Your task to perform on an android device: install app "Adobe Express: Graphic Design" Image 0: 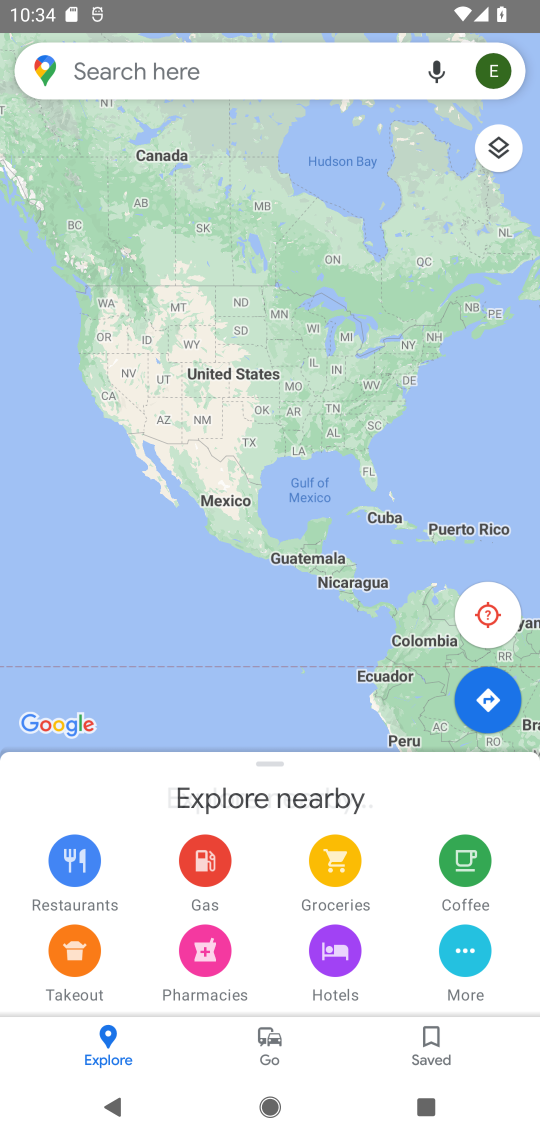
Step 0: drag from (297, 874) to (258, 110)
Your task to perform on an android device: install app "Adobe Express: Graphic Design" Image 1: 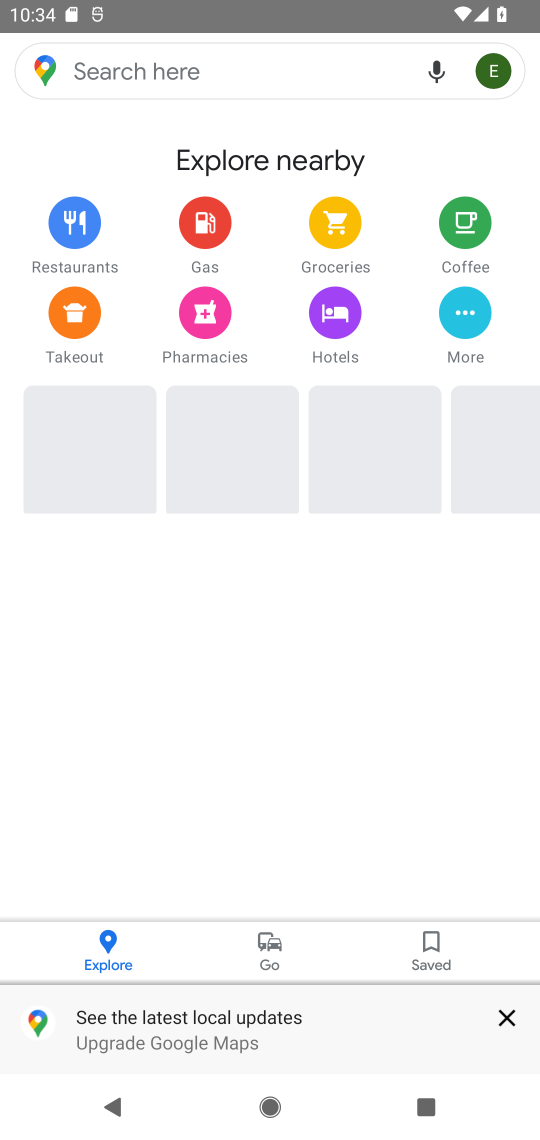
Step 1: press home button
Your task to perform on an android device: install app "Adobe Express: Graphic Design" Image 2: 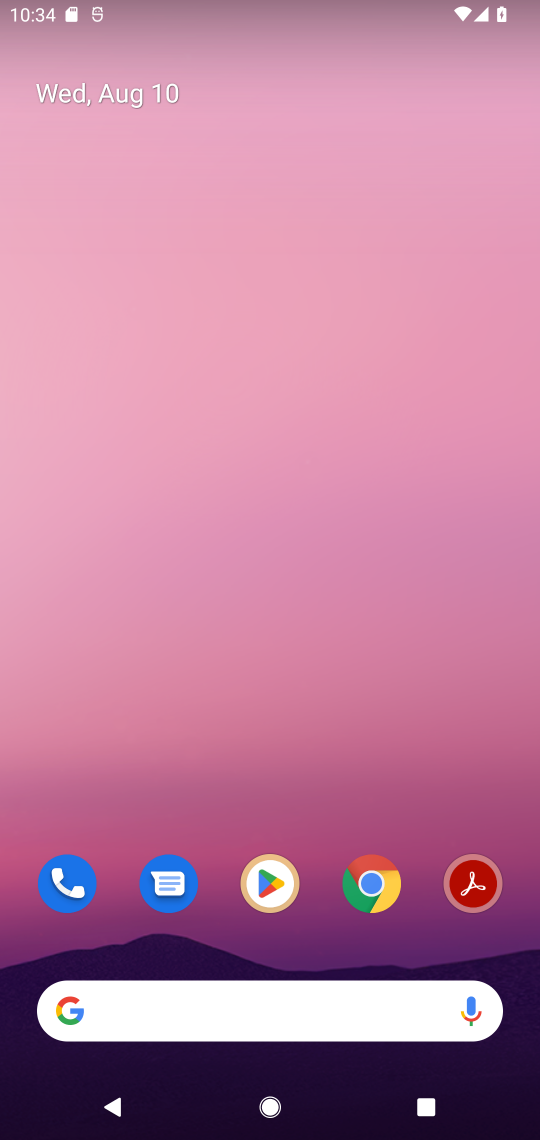
Step 2: drag from (335, 944) to (320, 174)
Your task to perform on an android device: install app "Adobe Express: Graphic Design" Image 3: 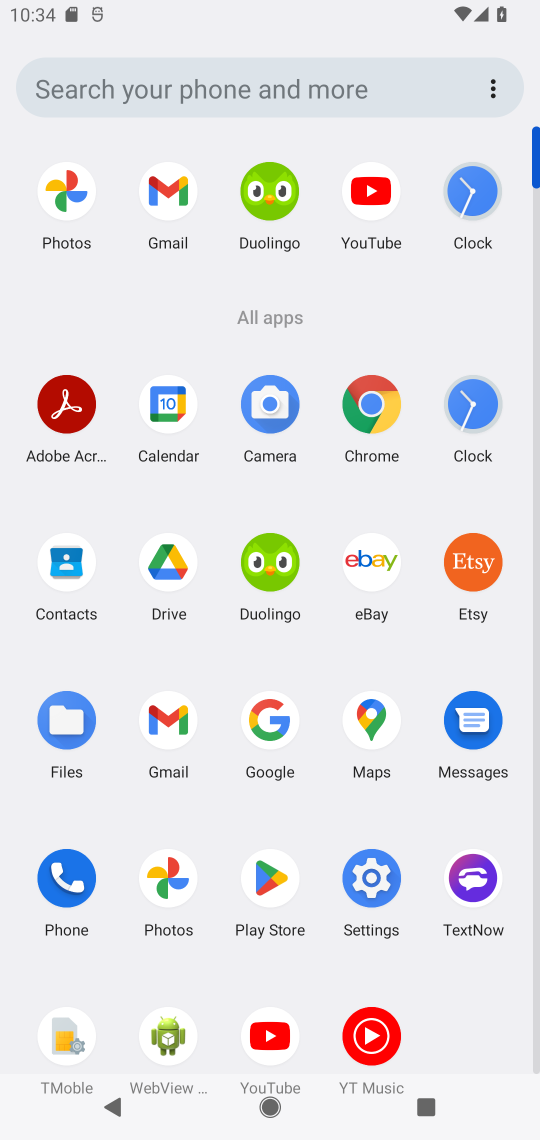
Step 3: click (273, 882)
Your task to perform on an android device: install app "Adobe Express: Graphic Design" Image 4: 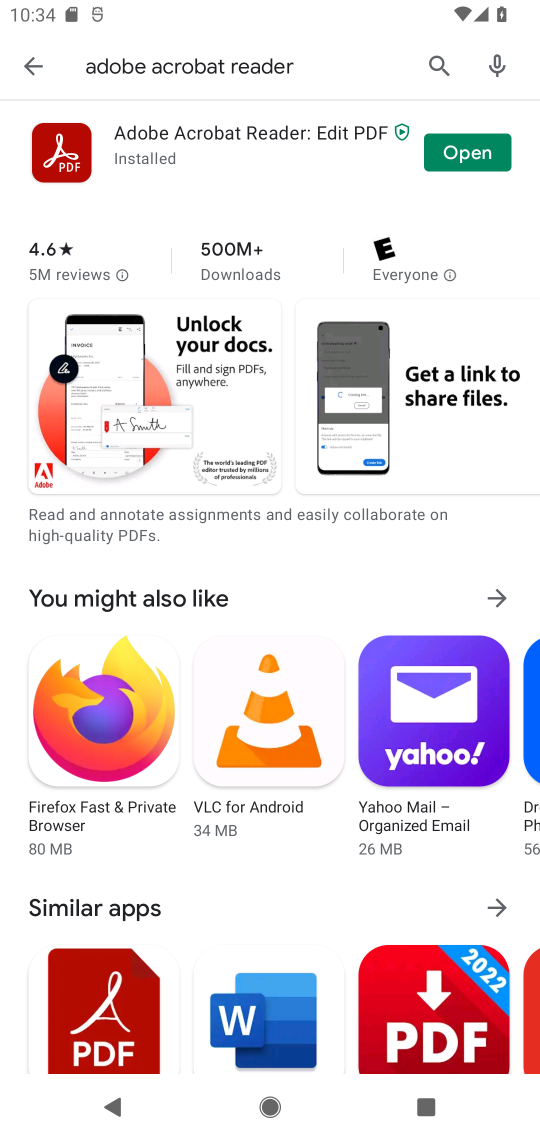
Step 4: click (436, 63)
Your task to perform on an android device: install app "Adobe Express: Graphic Design" Image 5: 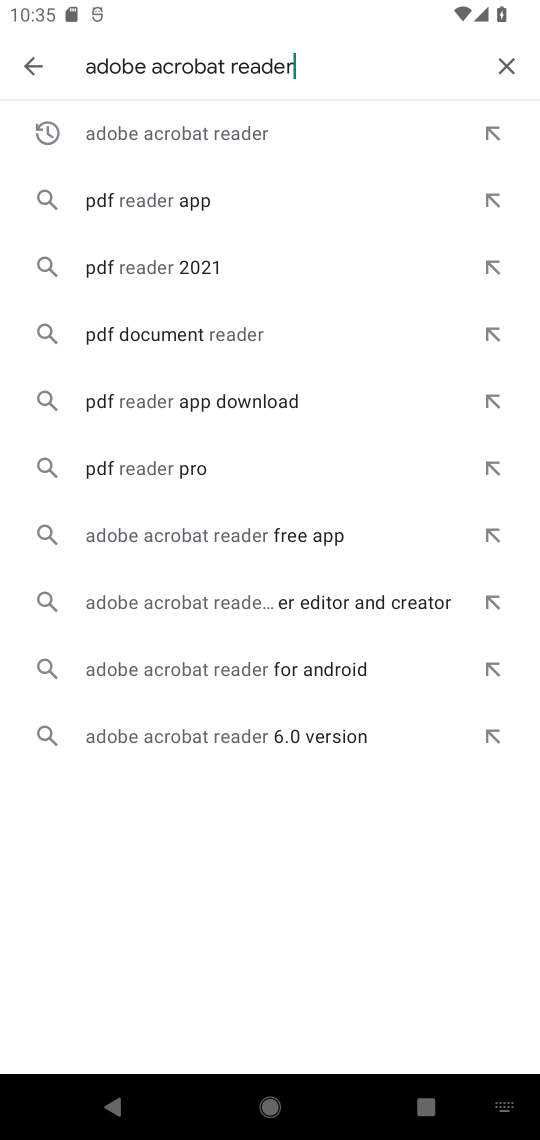
Step 5: click (503, 59)
Your task to perform on an android device: install app "Adobe Express: Graphic Design" Image 6: 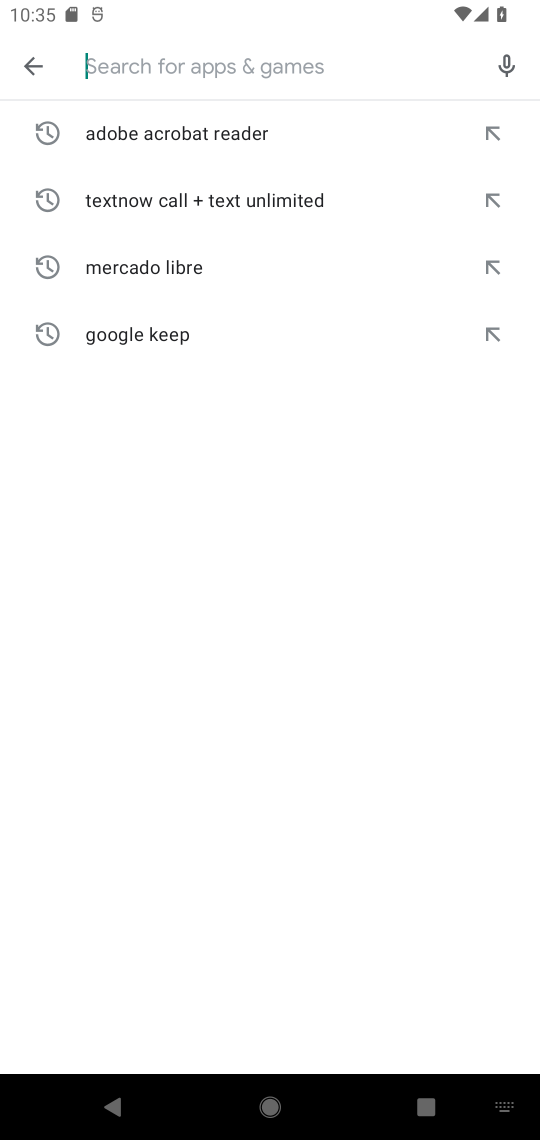
Step 6: type "Adobe Express: Graphic Design"
Your task to perform on an android device: install app "Adobe Express: Graphic Design" Image 7: 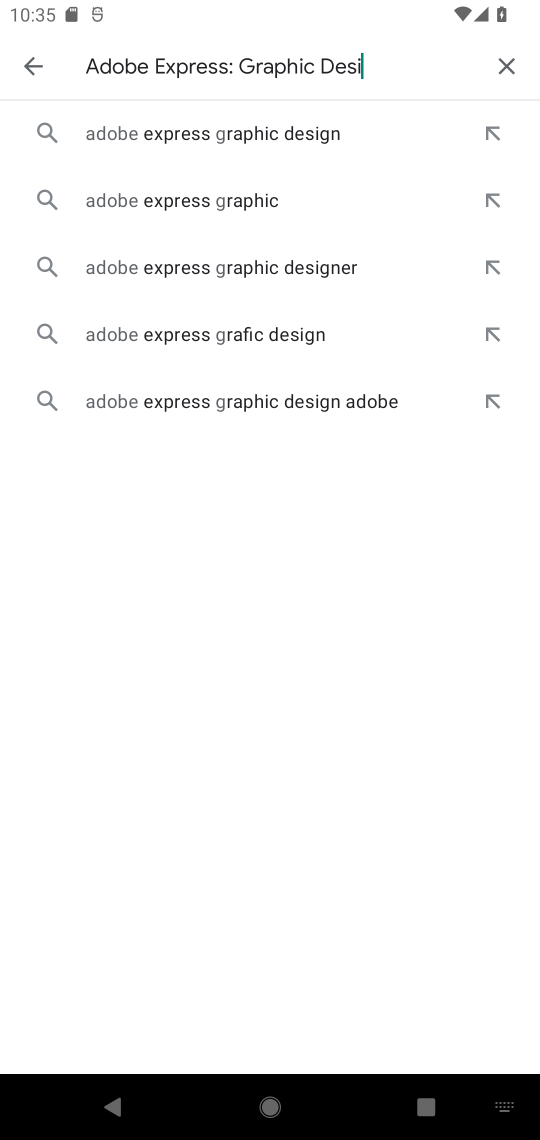
Step 7: type ""
Your task to perform on an android device: install app "Adobe Express: Graphic Design" Image 8: 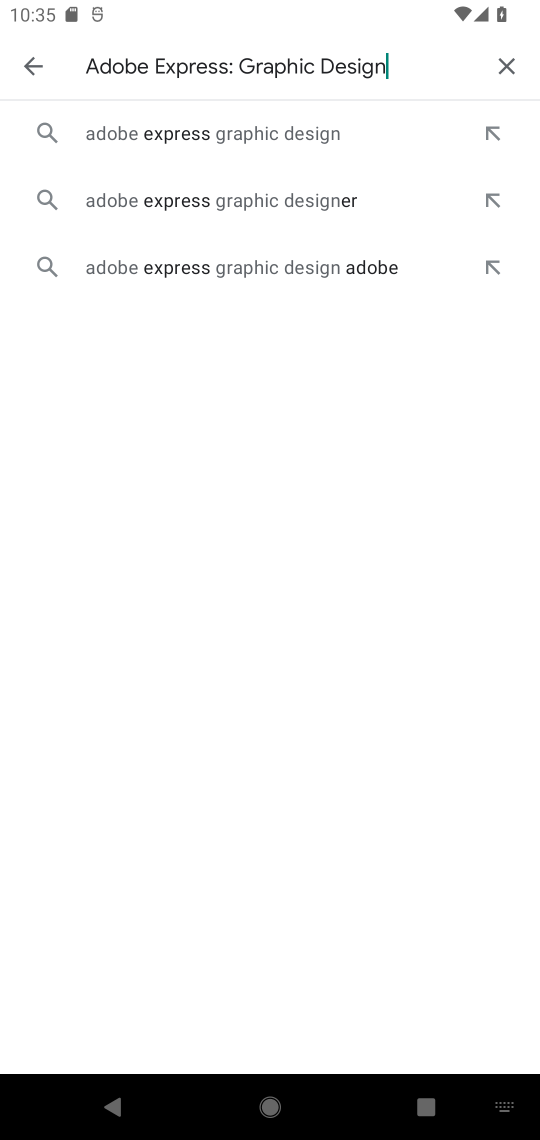
Step 8: click (195, 138)
Your task to perform on an android device: install app "Adobe Express: Graphic Design" Image 9: 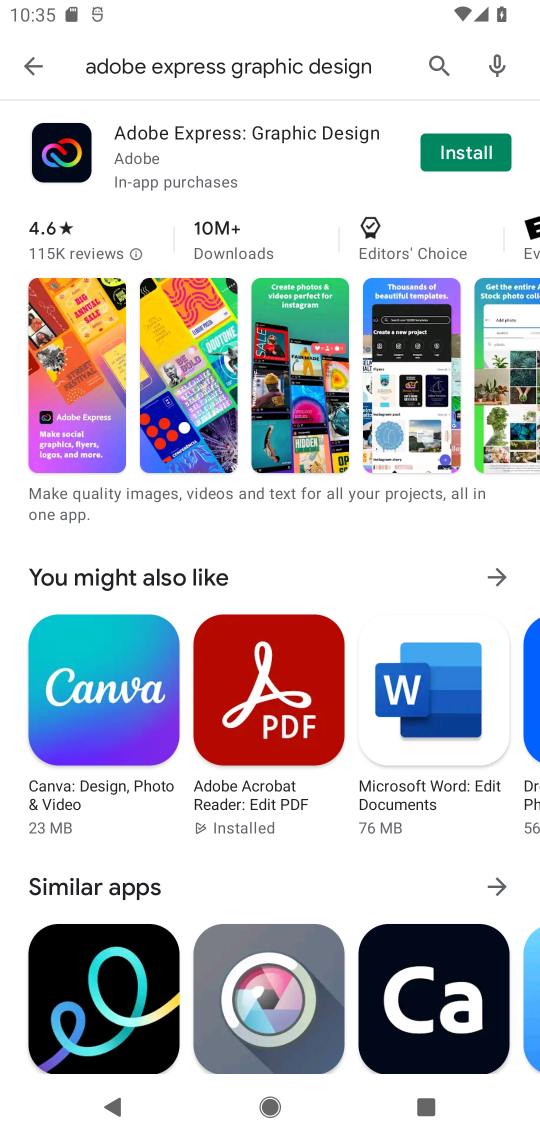
Step 9: click (459, 135)
Your task to perform on an android device: install app "Adobe Express: Graphic Design" Image 10: 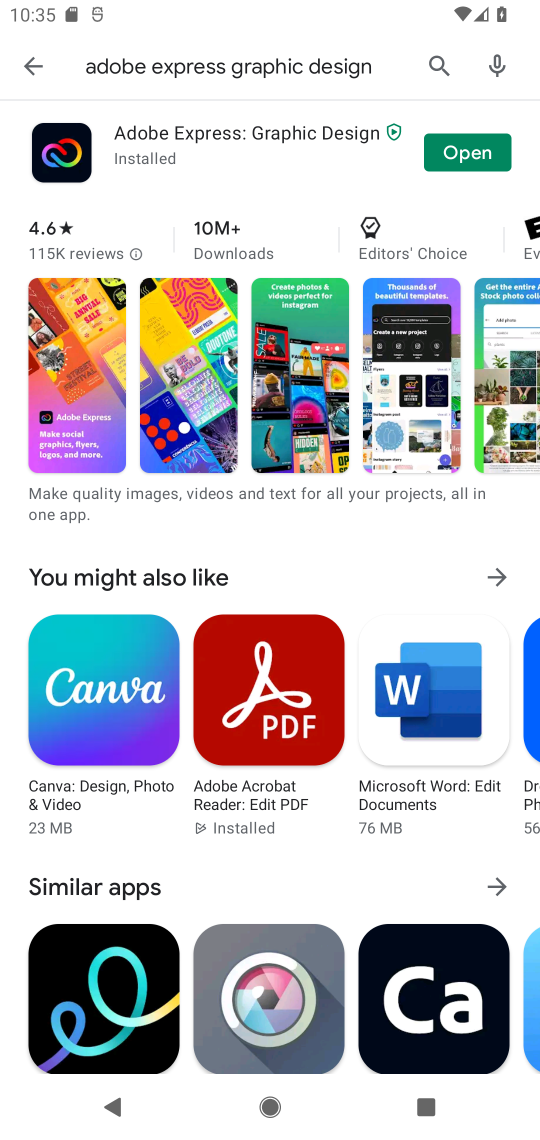
Step 10: click (339, 147)
Your task to perform on an android device: install app "Adobe Express: Graphic Design" Image 11: 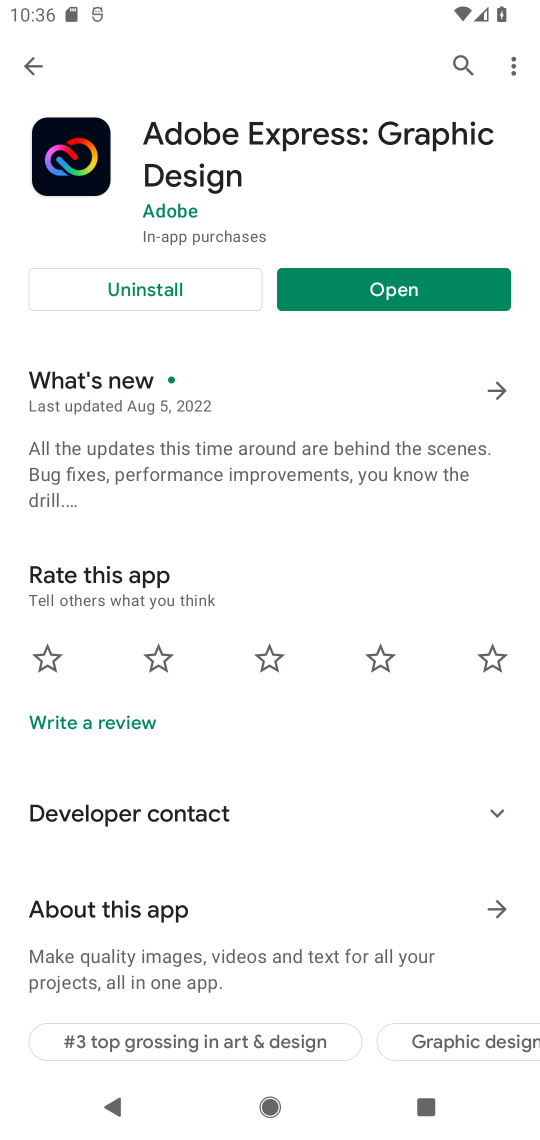
Step 11: task complete